Your task to perform on an android device: snooze an email in the gmail app Image 0: 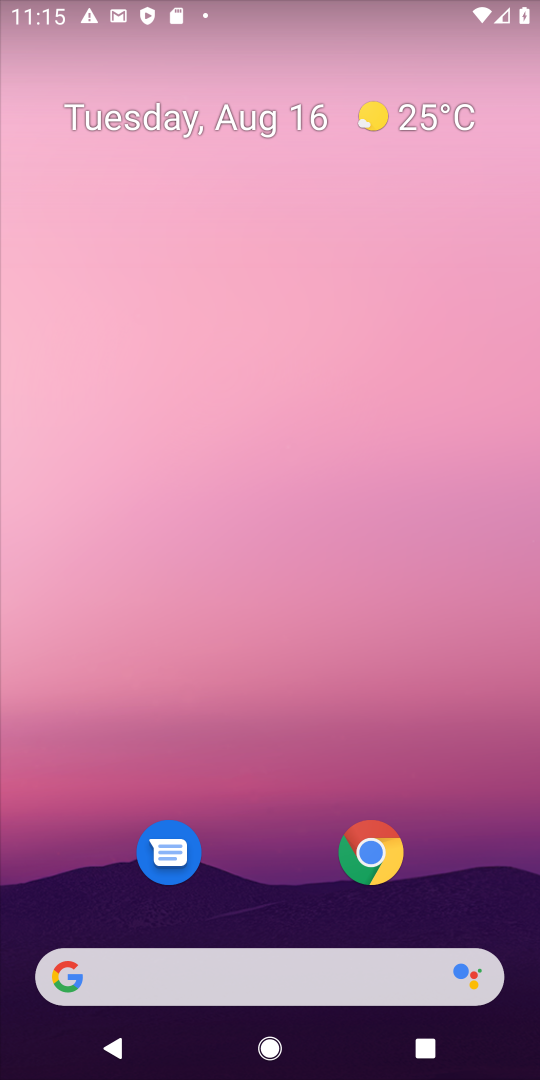
Step 0: drag from (255, 793) to (248, 417)
Your task to perform on an android device: snooze an email in the gmail app Image 1: 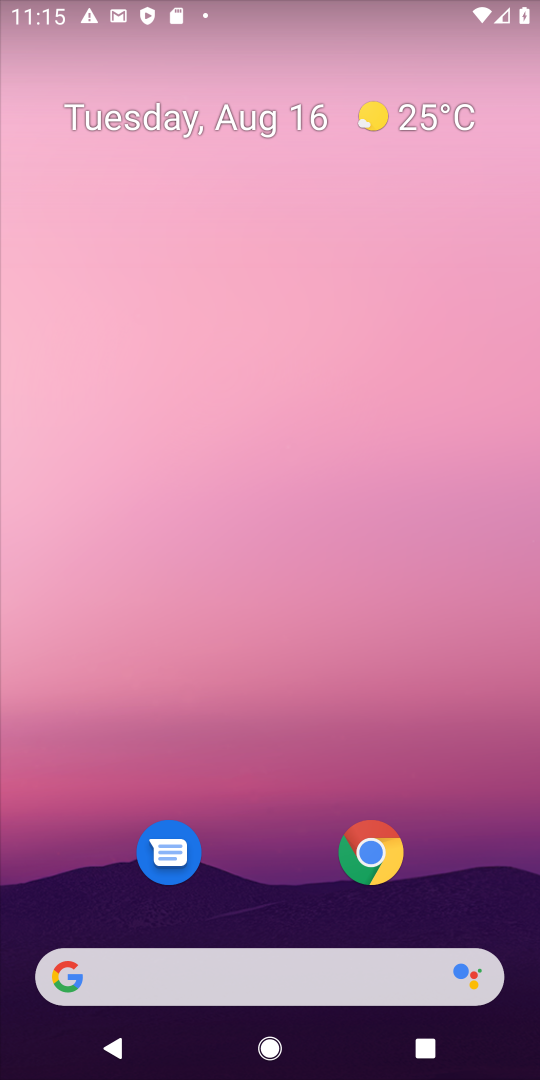
Step 1: drag from (284, 799) to (339, 338)
Your task to perform on an android device: snooze an email in the gmail app Image 2: 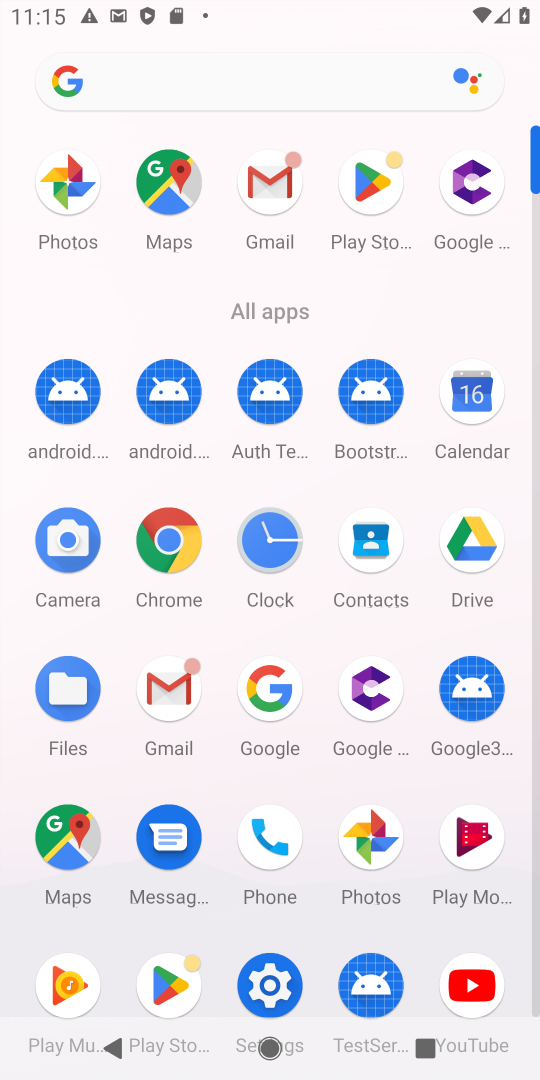
Step 2: click (183, 696)
Your task to perform on an android device: snooze an email in the gmail app Image 3: 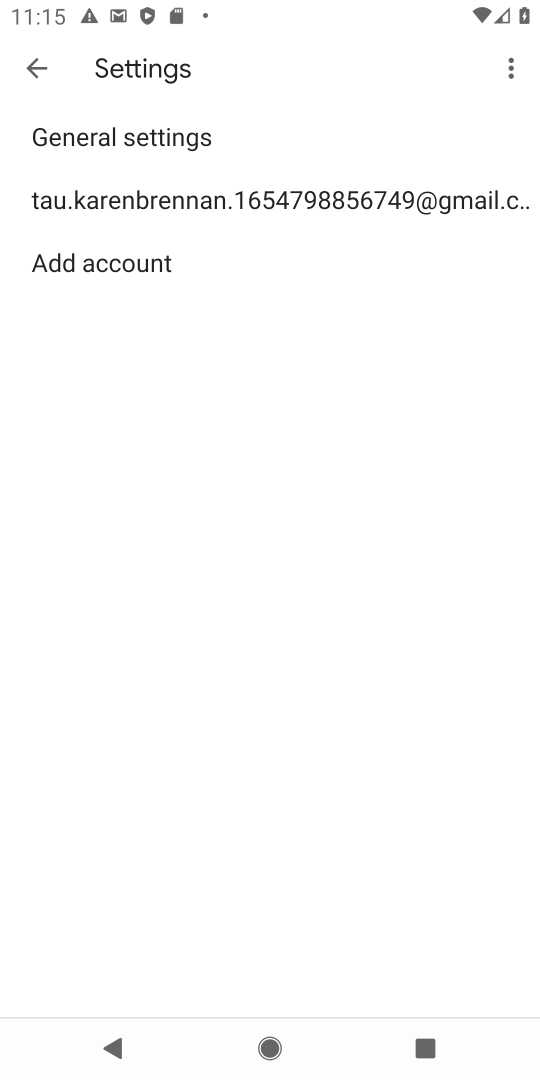
Step 3: task complete